Your task to perform on an android device: Go to notification settings Image 0: 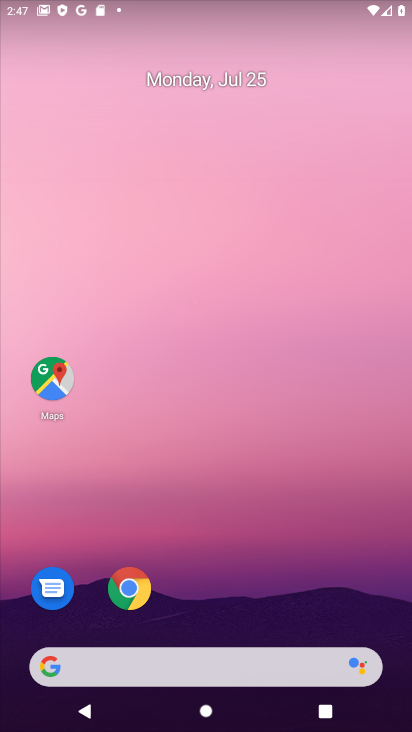
Step 0: drag from (396, 700) to (318, 195)
Your task to perform on an android device: Go to notification settings Image 1: 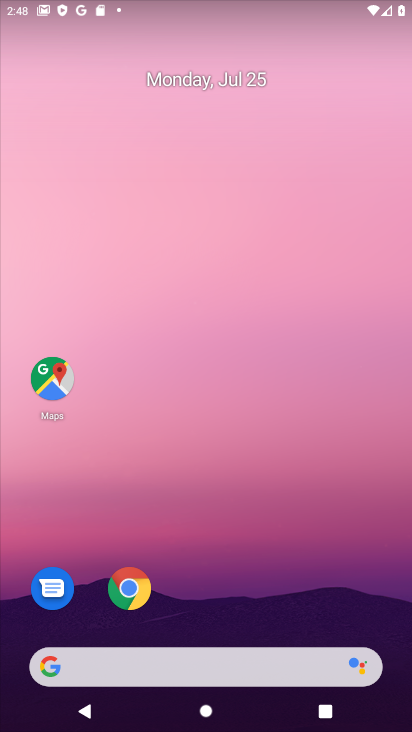
Step 1: drag from (386, 706) to (285, 6)
Your task to perform on an android device: Go to notification settings Image 2: 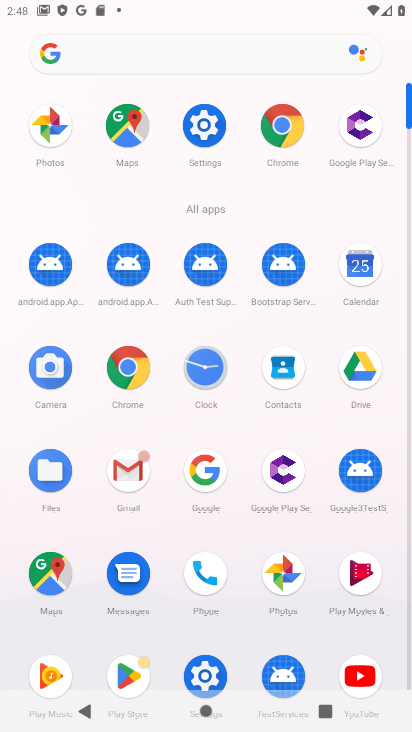
Step 2: click (195, 140)
Your task to perform on an android device: Go to notification settings Image 3: 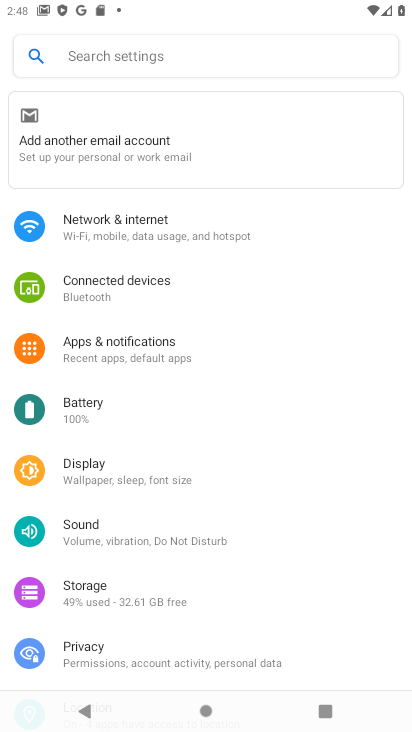
Step 3: click (108, 348)
Your task to perform on an android device: Go to notification settings Image 4: 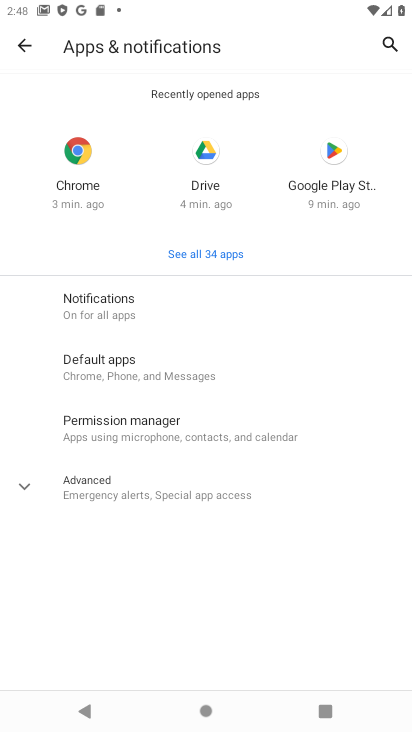
Step 4: click (81, 316)
Your task to perform on an android device: Go to notification settings Image 5: 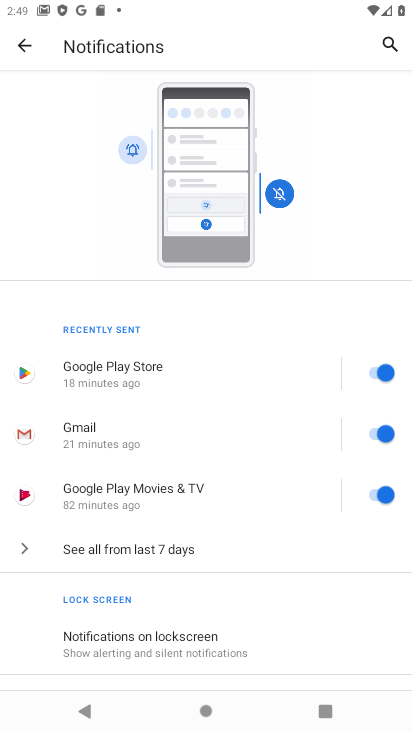
Step 5: drag from (297, 579) to (304, 251)
Your task to perform on an android device: Go to notification settings Image 6: 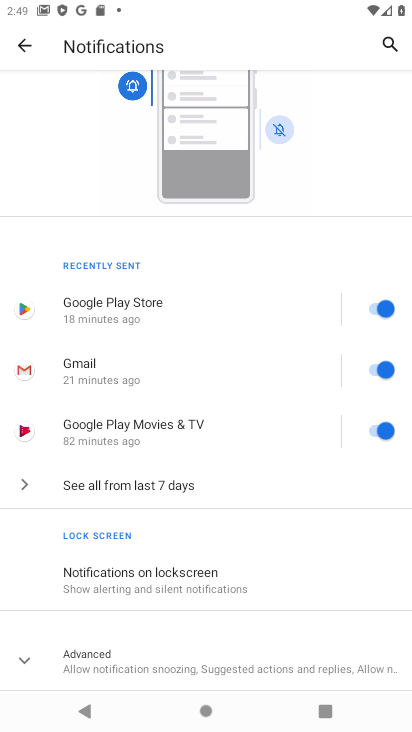
Step 6: click (25, 662)
Your task to perform on an android device: Go to notification settings Image 7: 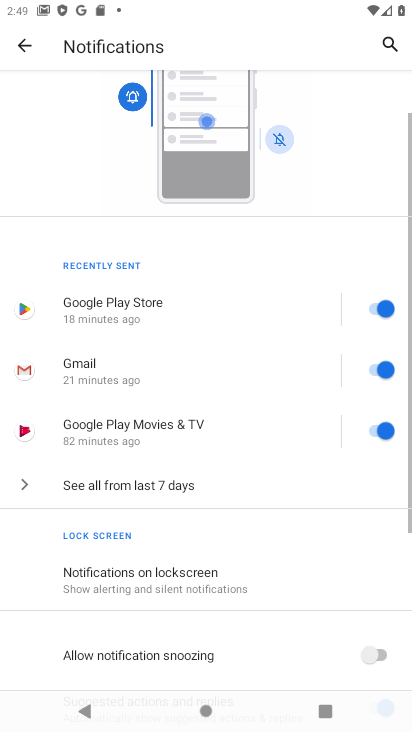
Step 7: task complete